Your task to perform on an android device: turn on priority inbox in the gmail app Image 0: 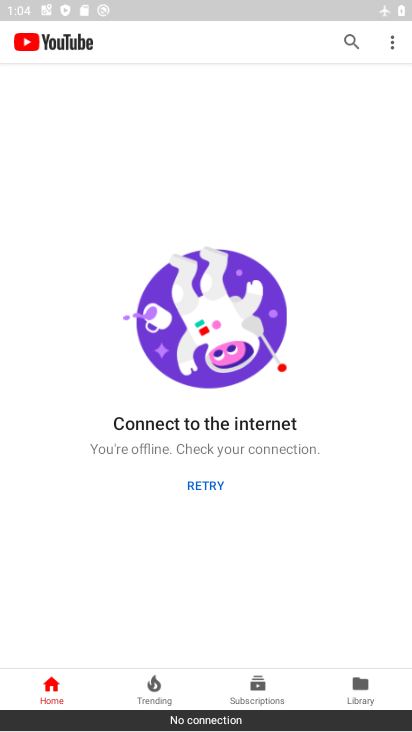
Step 0: press home button
Your task to perform on an android device: turn on priority inbox in the gmail app Image 1: 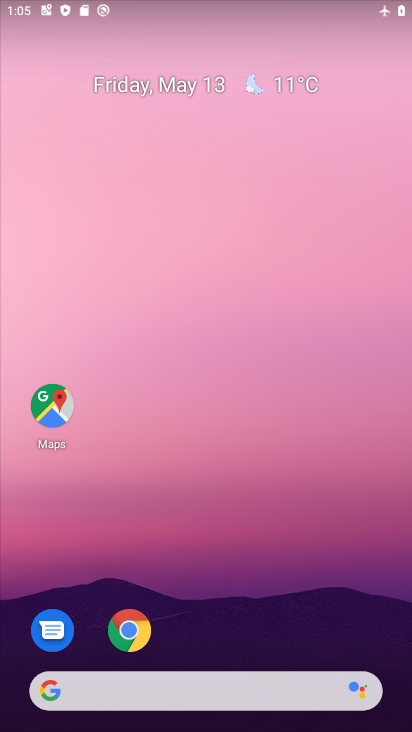
Step 1: drag from (328, 597) to (371, 25)
Your task to perform on an android device: turn on priority inbox in the gmail app Image 2: 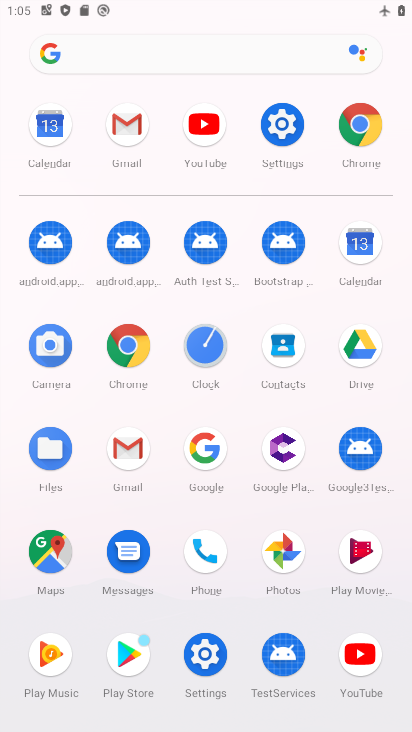
Step 2: click (125, 128)
Your task to perform on an android device: turn on priority inbox in the gmail app Image 3: 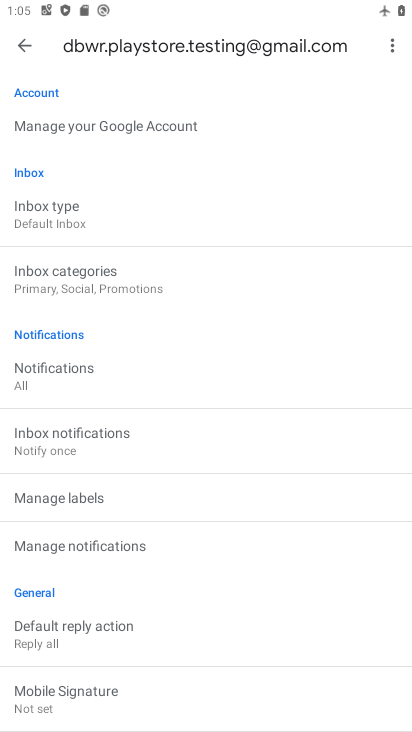
Step 3: click (53, 216)
Your task to perform on an android device: turn on priority inbox in the gmail app Image 4: 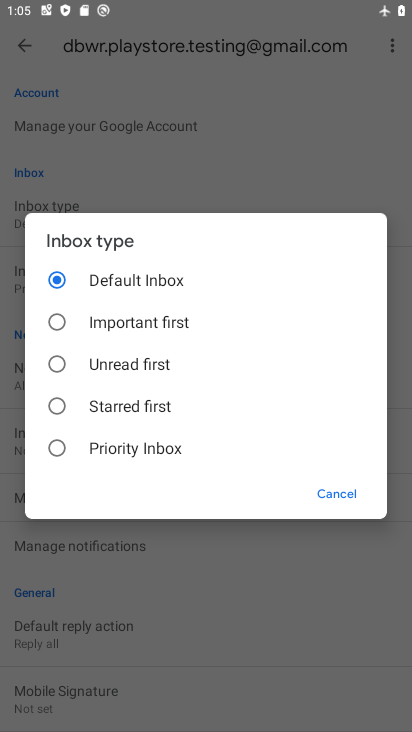
Step 4: click (59, 451)
Your task to perform on an android device: turn on priority inbox in the gmail app Image 5: 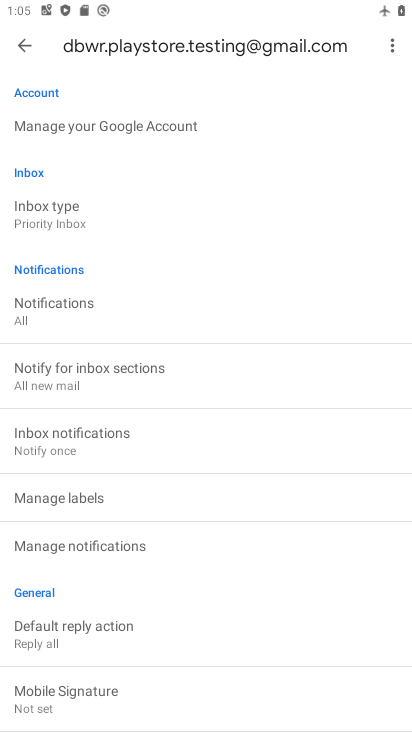
Step 5: task complete